Your task to perform on an android device: Open Youtube and go to "Your channel" Image 0: 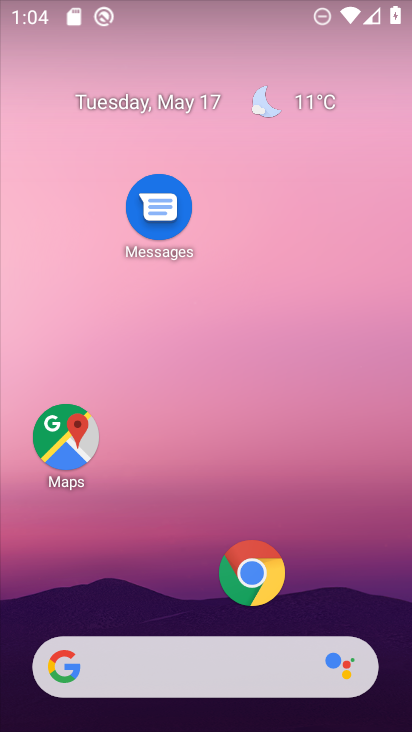
Step 0: drag from (191, 608) to (214, 90)
Your task to perform on an android device: Open Youtube and go to "Your channel" Image 1: 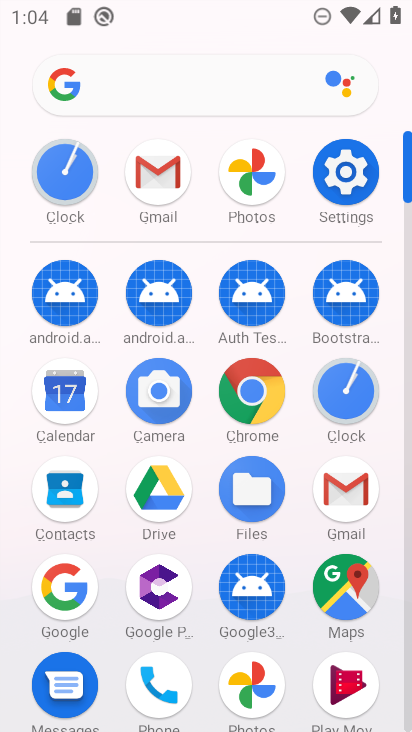
Step 1: drag from (294, 648) to (316, 188)
Your task to perform on an android device: Open Youtube and go to "Your channel" Image 2: 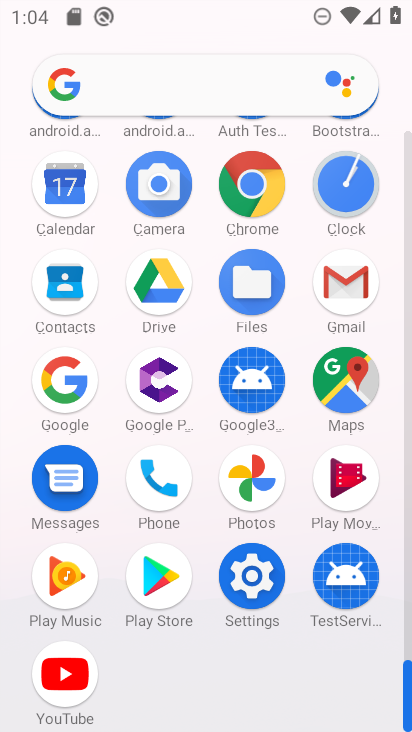
Step 2: click (65, 664)
Your task to perform on an android device: Open Youtube and go to "Your channel" Image 3: 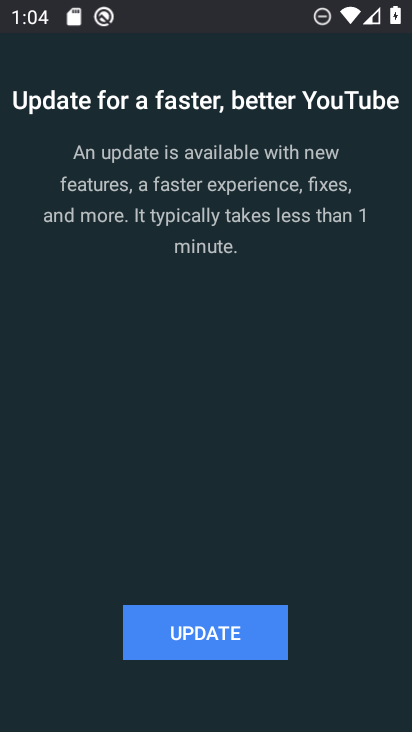
Step 3: click (204, 631)
Your task to perform on an android device: Open Youtube and go to "Your channel" Image 4: 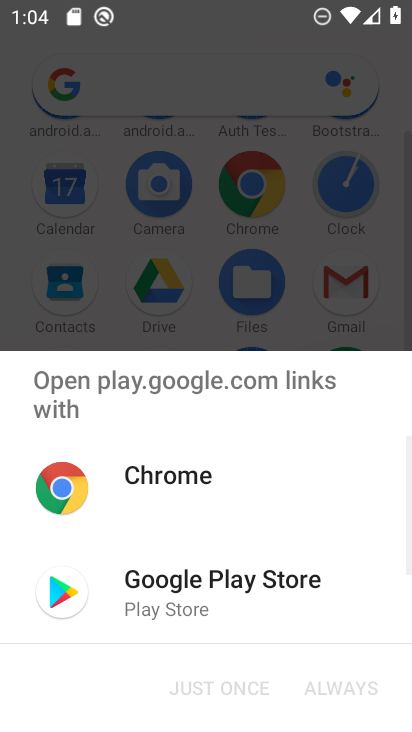
Step 4: click (117, 598)
Your task to perform on an android device: Open Youtube and go to "Your channel" Image 5: 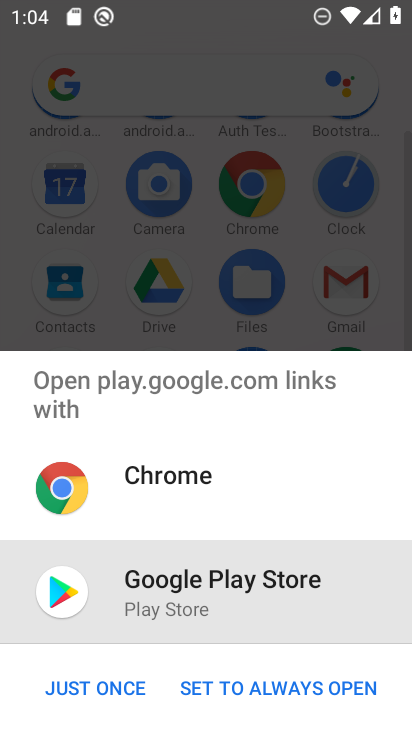
Step 5: click (95, 692)
Your task to perform on an android device: Open Youtube and go to "Your channel" Image 6: 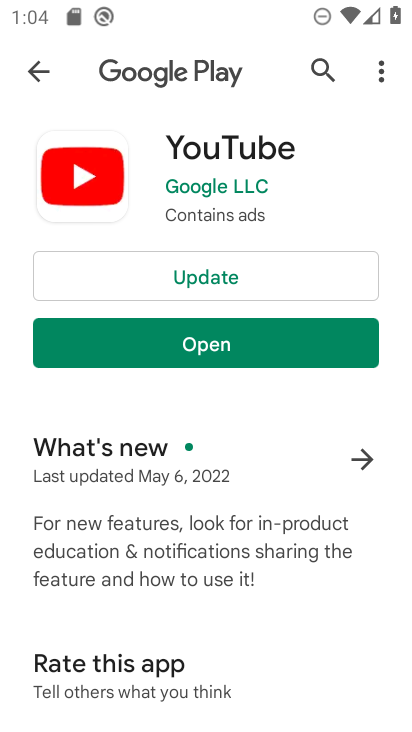
Step 6: click (209, 279)
Your task to perform on an android device: Open Youtube and go to "Your channel" Image 7: 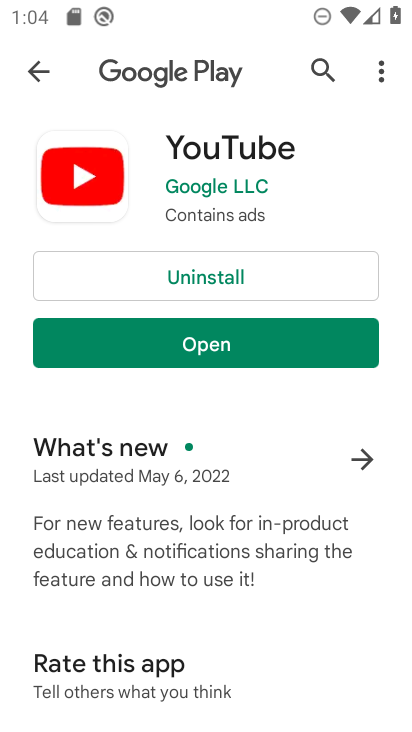
Step 7: click (212, 351)
Your task to perform on an android device: Open Youtube and go to "Your channel" Image 8: 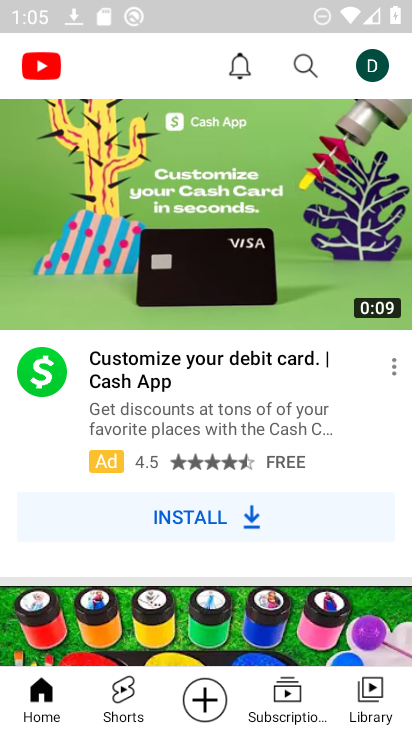
Step 8: click (376, 67)
Your task to perform on an android device: Open Youtube and go to "Your channel" Image 9: 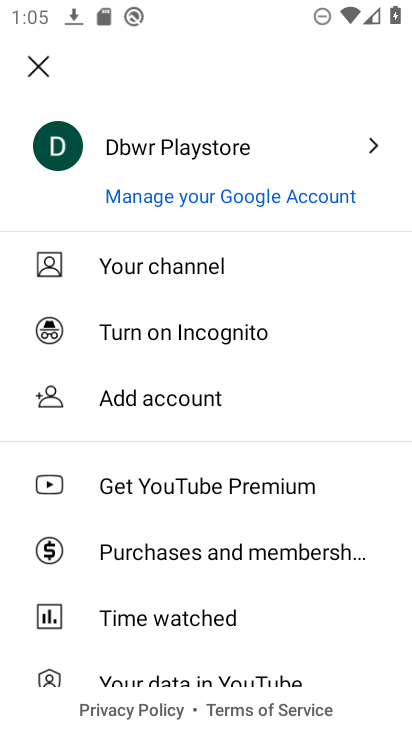
Step 9: click (235, 263)
Your task to perform on an android device: Open Youtube and go to "Your channel" Image 10: 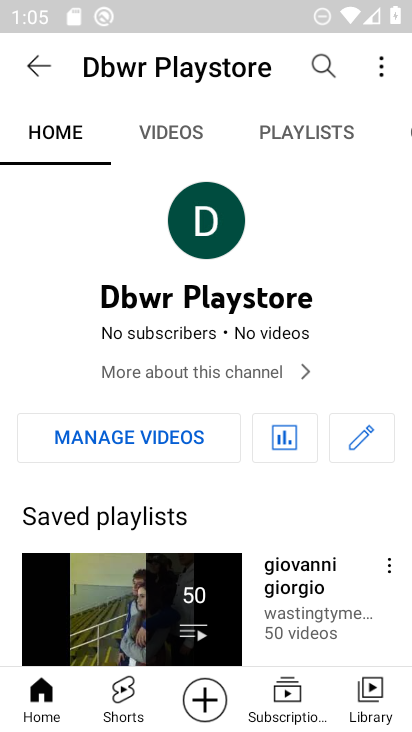
Step 10: task complete